Your task to perform on an android device: turn off airplane mode Image 0: 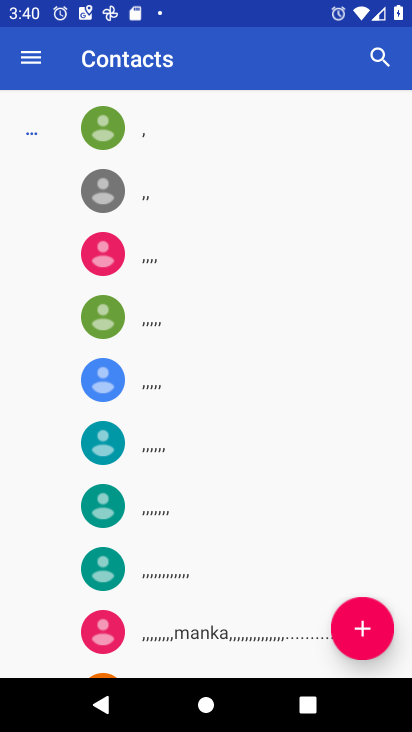
Step 0: press home button
Your task to perform on an android device: turn off airplane mode Image 1: 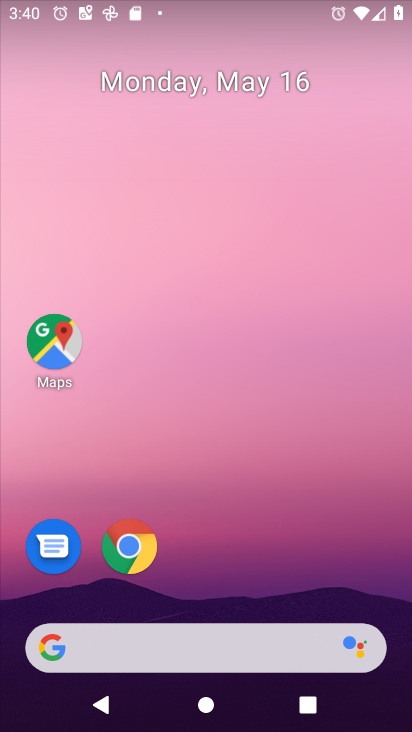
Step 1: drag from (370, 590) to (390, 61)
Your task to perform on an android device: turn off airplane mode Image 2: 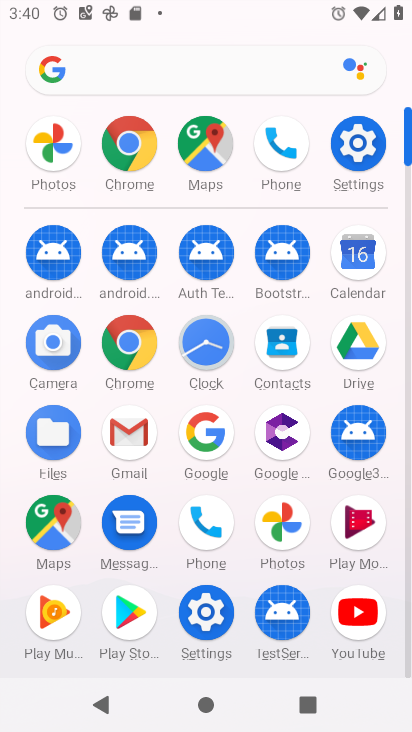
Step 2: click (357, 146)
Your task to perform on an android device: turn off airplane mode Image 3: 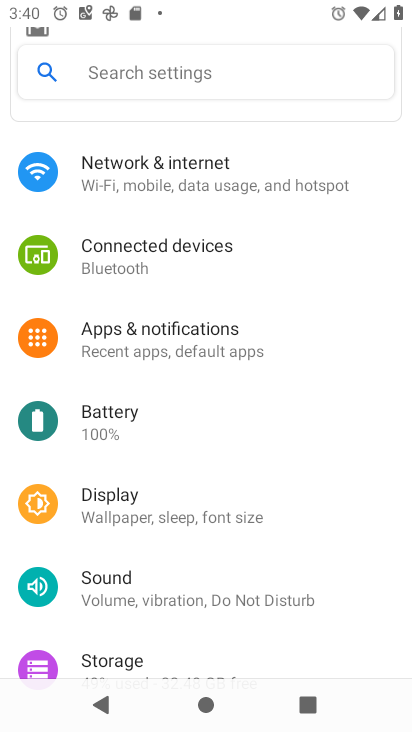
Step 3: drag from (368, 611) to (369, 443)
Your task to perform on an android device: turn off airplane mode Image 4: 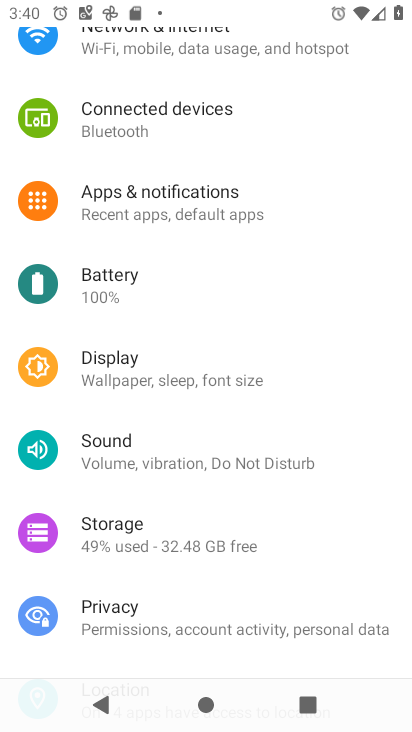
Step 4: drag from (343, 630) to (361, 442)
Your task to perform on an android device: turn off airplane mode Image 5: 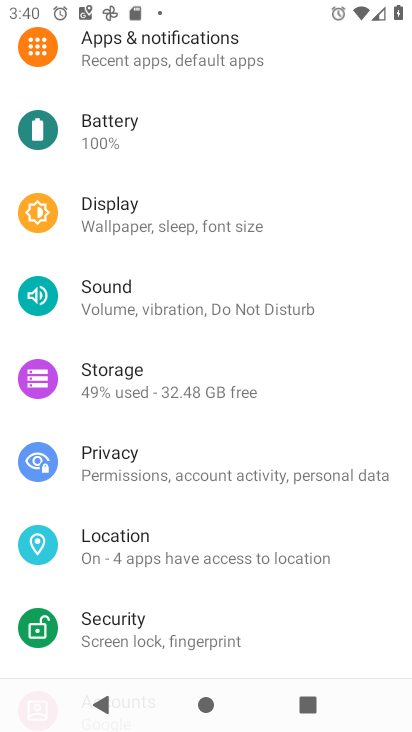
Step 5: drag from (359, 598) to (359, 413)
Your task to perform on an android device: turn off airplane mode Image 6: 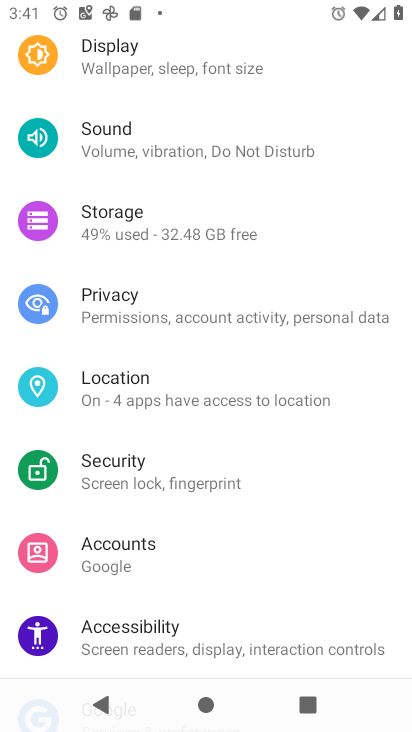
Step 6: drag from (357, 520) to (370, 366)
Your task to perform on an android device: turn off airplane mode Image 7: 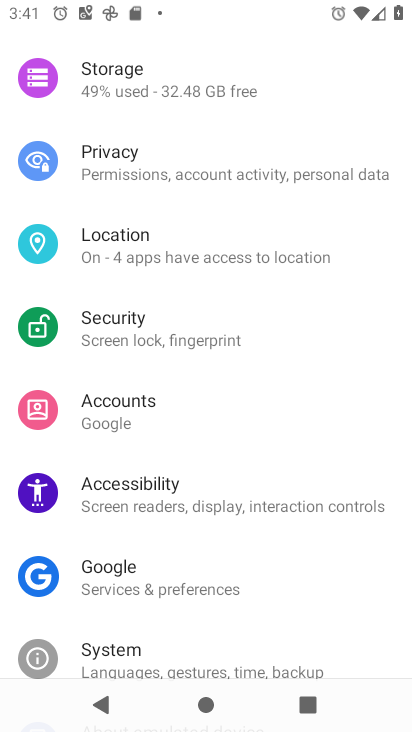
Step 7: drag from (349, 545) to (350, 401)
Your task to perform on an android device: turn off airplane mode Image 8: 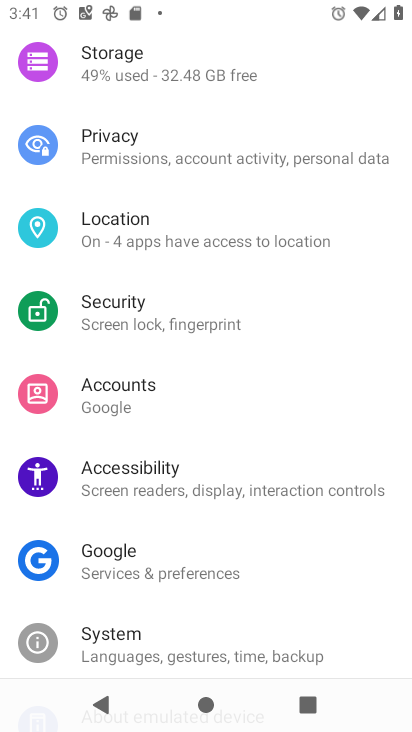
Step 8: drag from (351, 321) to (351, 497)
Your task to perform on an android device: turn off airplane mode Image 9: 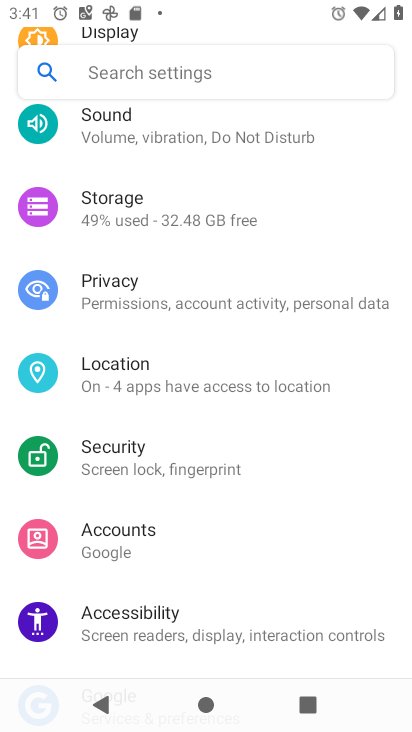
Step 9: drag from (378, 225) to (363, 381)
Your task to perform on an android device: turn off airplane mode Image 10: 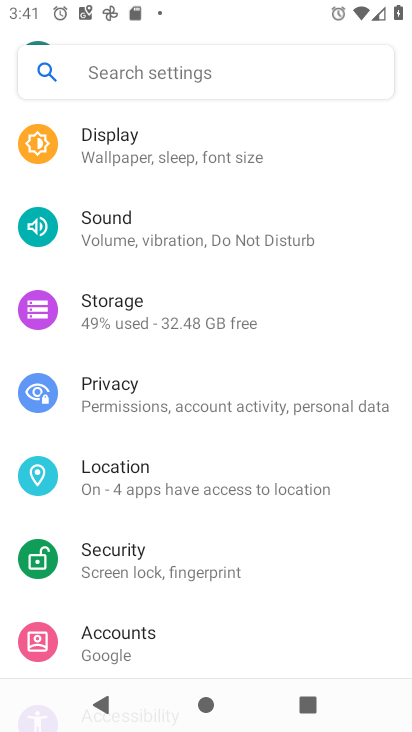
Step 10: drag from (363, 251) to (364, 462)
Your task to perform on an android device: turn off airplane mode Image 11: 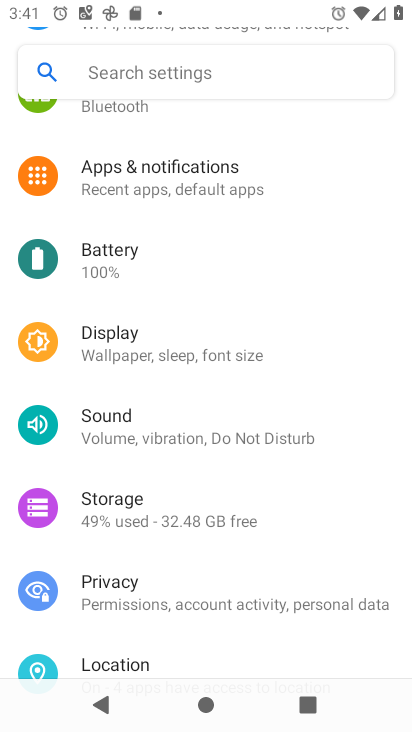
Step 11: drag from (358, 247) to (359, 412)
Your task to perform on an android device: turn off airplane mode Image 12: 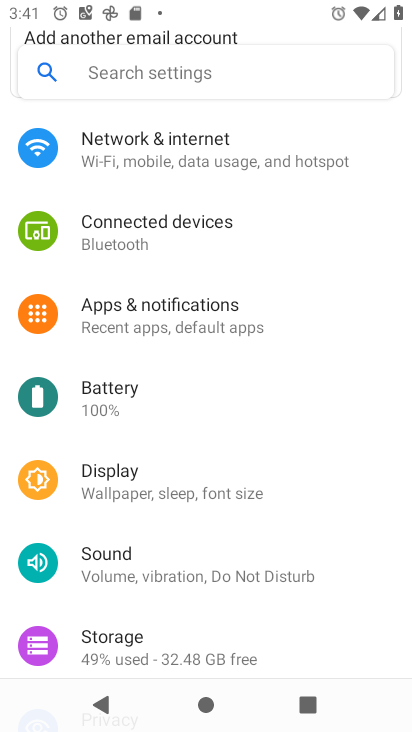
Step 12: drag from (358, 250) to (351, 381)
Your task to perform on an android device: turn off airplane mode Image 13: 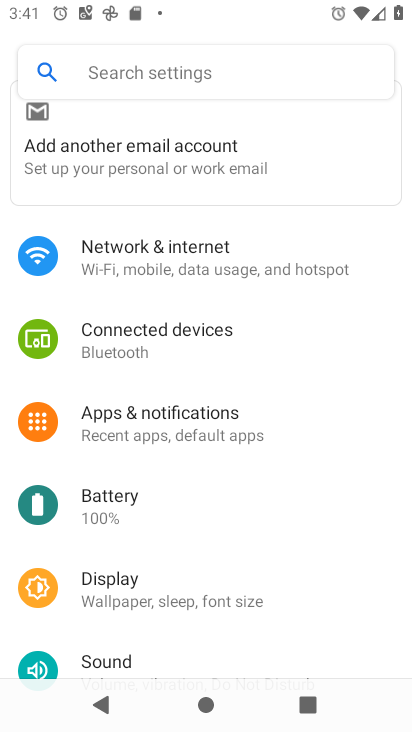
Step 13: click (278, 261)
Your task to perform on an android device: turn off airplane mode Image 14: 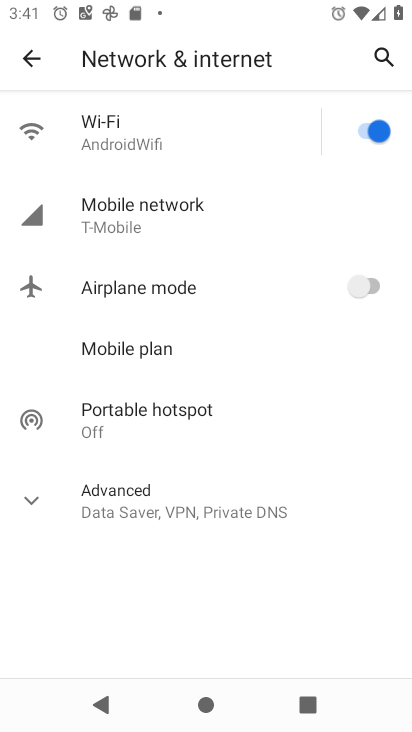
Step 14: task complete